Your task to perform on an android device: check google app version Image 0: 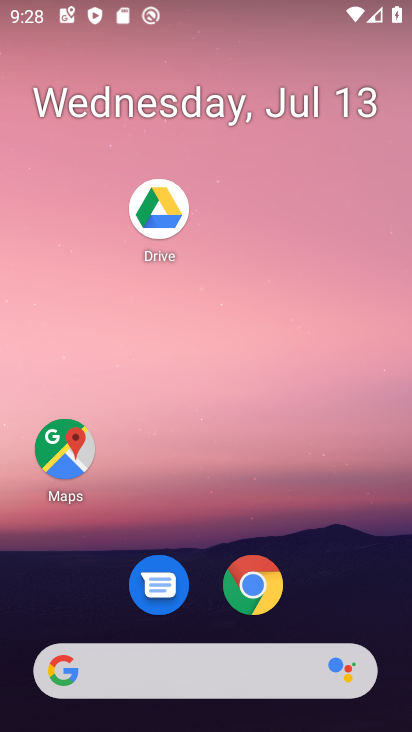
Step 0: drag from (262, 667) to (411, 286)
Your task to perform on an android device: check google app version Image 1: 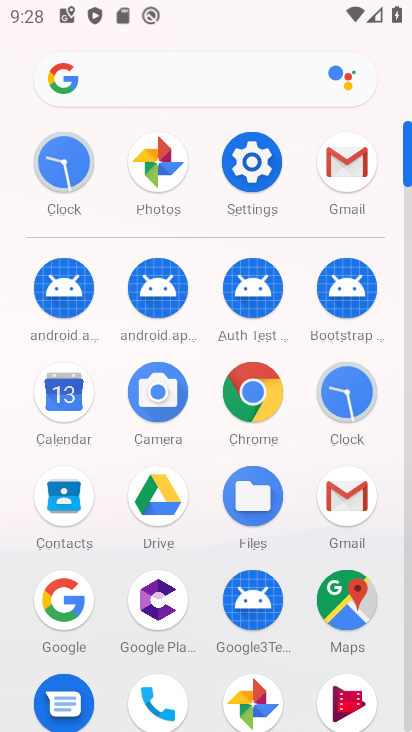
Step 1: click (68, 602)
Your task to perform on an android device: check google app version Image 2: 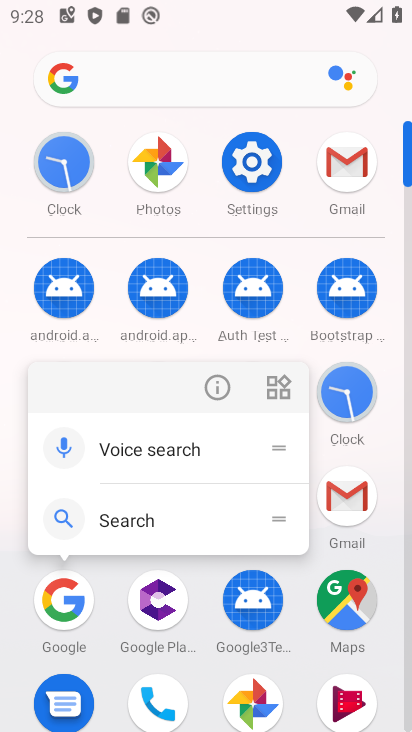
Step 2: click (220, 389)
Your task to perform on an android device: check google app version Image 3: 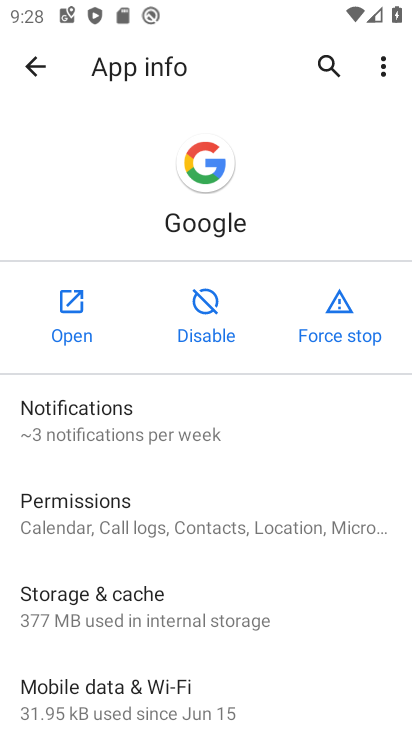
Step 3: drag from (247, 661) to (378, 71)
Your task to perform on an android device: check google app version Image 4: 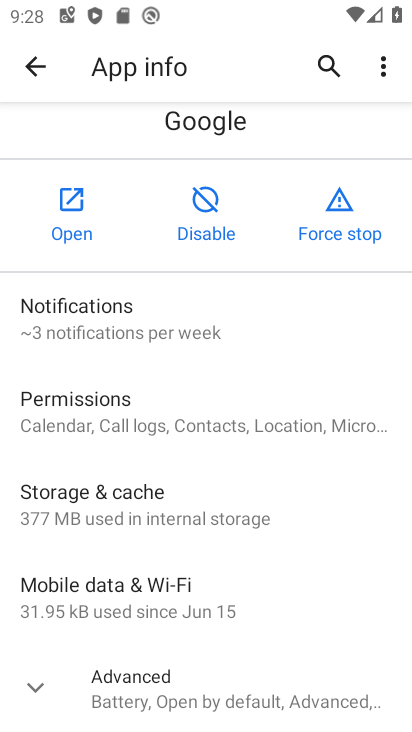
Step 4: click (134, 683)
Your task to perform on an android device: check google app version Image 5: 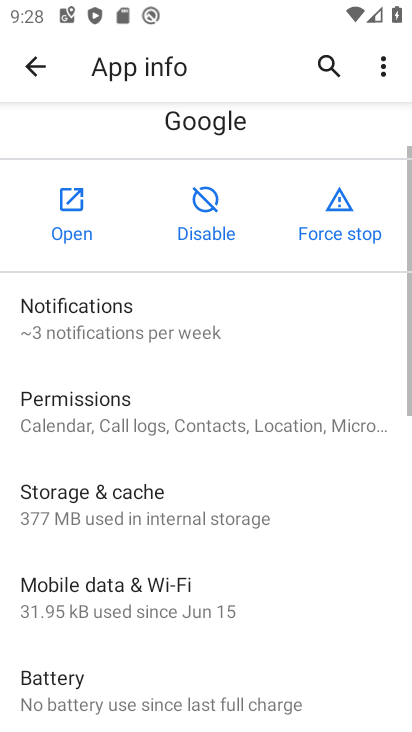
Step 5: task complete